Your task to perform on an android device: Look up the best rated coffee maker on Lowe's. Image 0: 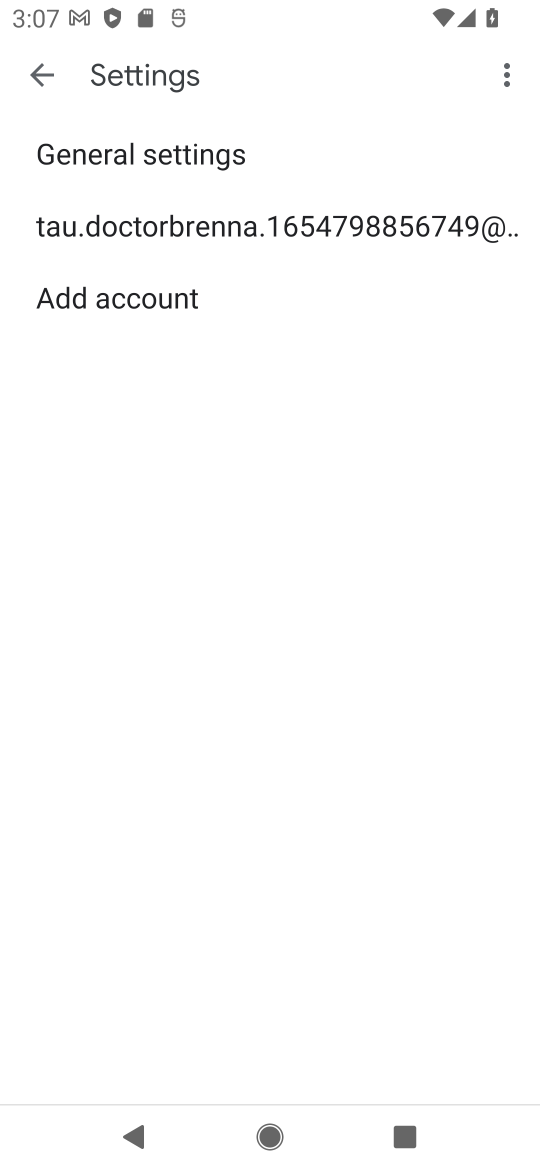
Step 0: press home button
Your task to perform on an android device: Look up the best rated coffee maker on Lowe's. Image 1: 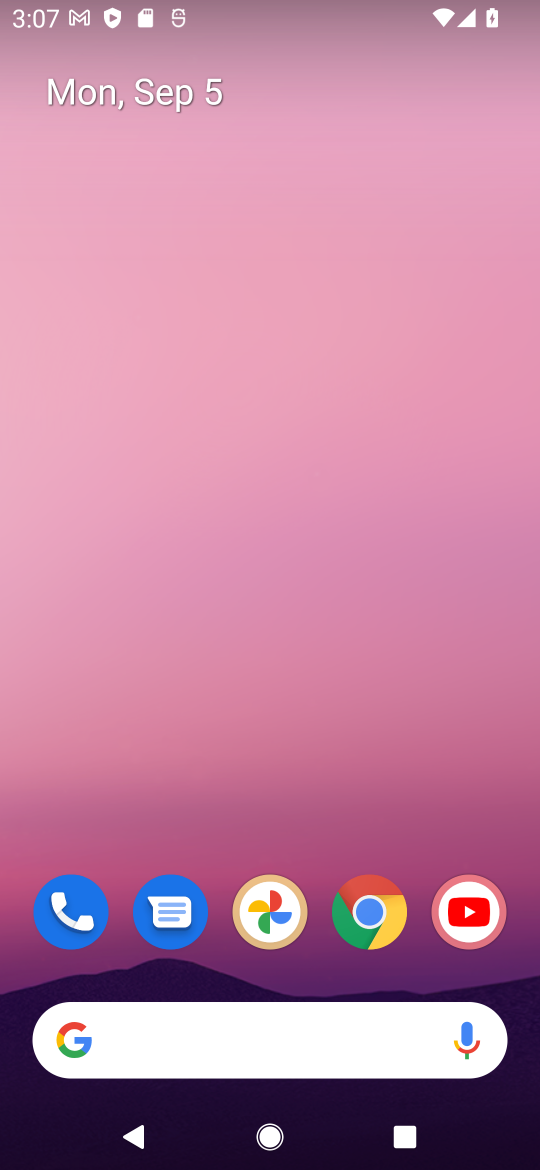
Step 1: click (406, 917)
Your task to perform on an android device: Look up the best rated coffee maker on Lowe's. Image 2: 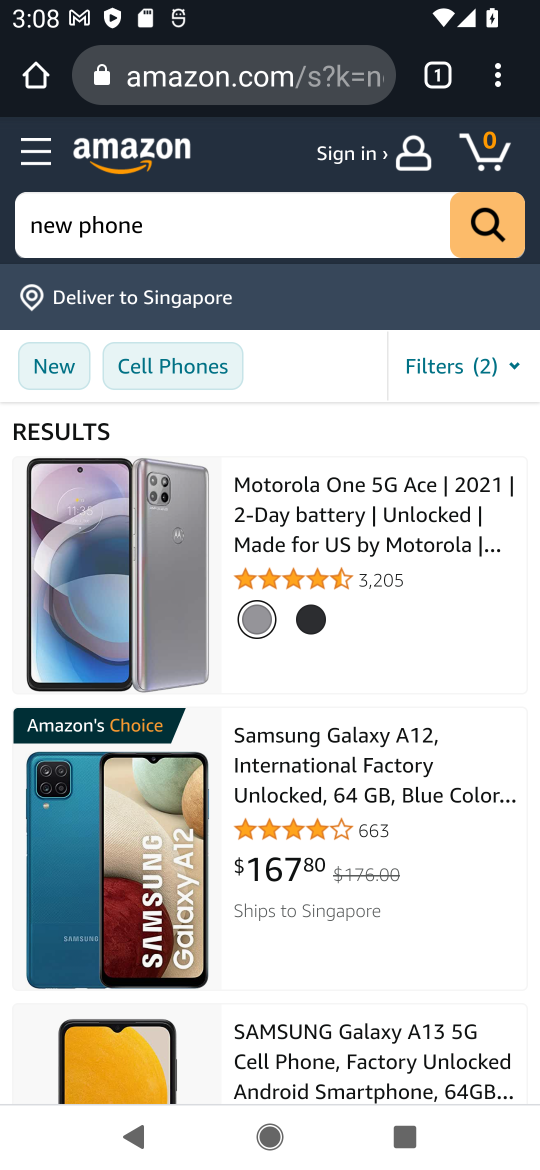
Step 2: click (314, 78)
Your task to perform on an android device: Look up the best rated coffee maker on Lowe's. Image 3: 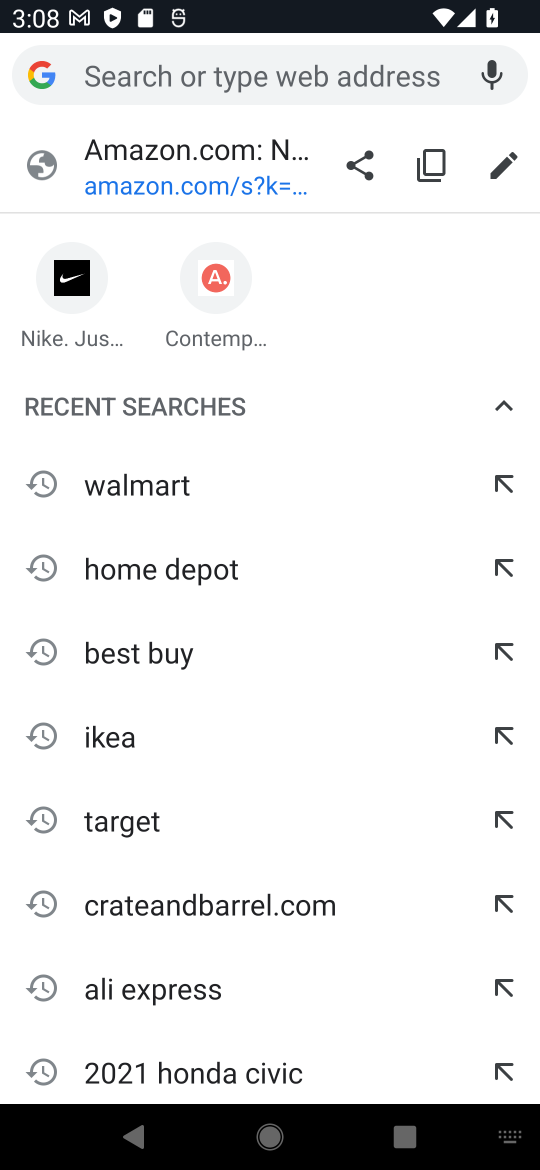
Step 3: type "lowe's"
Your task to perform on an android device: Look up the best rated coffee maker on Lowe's. Image 4: 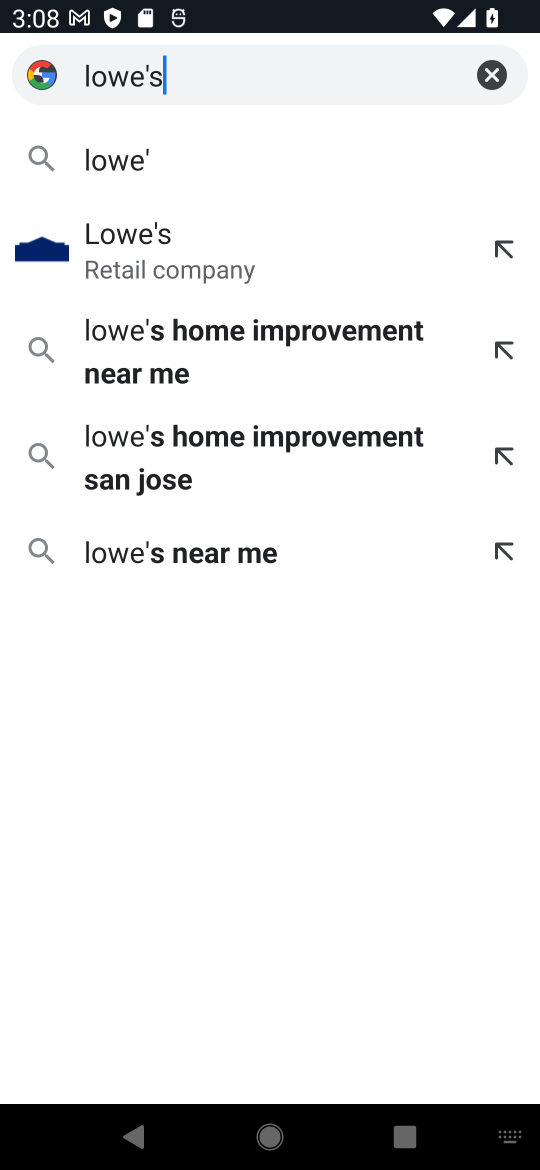
Step 4: type ""
Your task to perform on an android device: Look up the best rated coffee maker on Lowe's. Image 5: 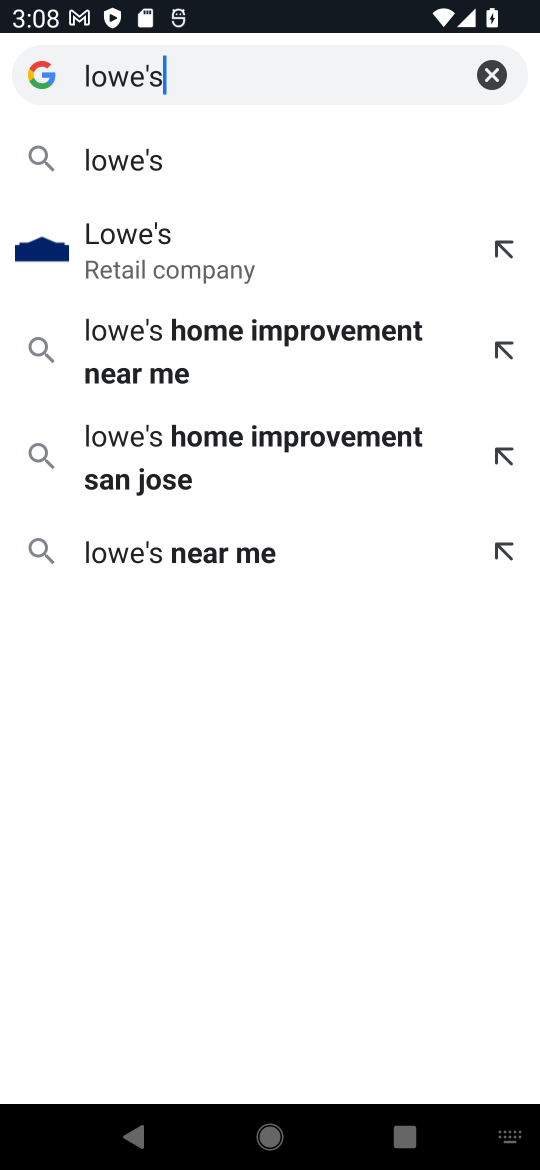
Step 5: press enter
Your task to perform on an android device: Look up the best rated coffee maker on Lowe's. Image 6: 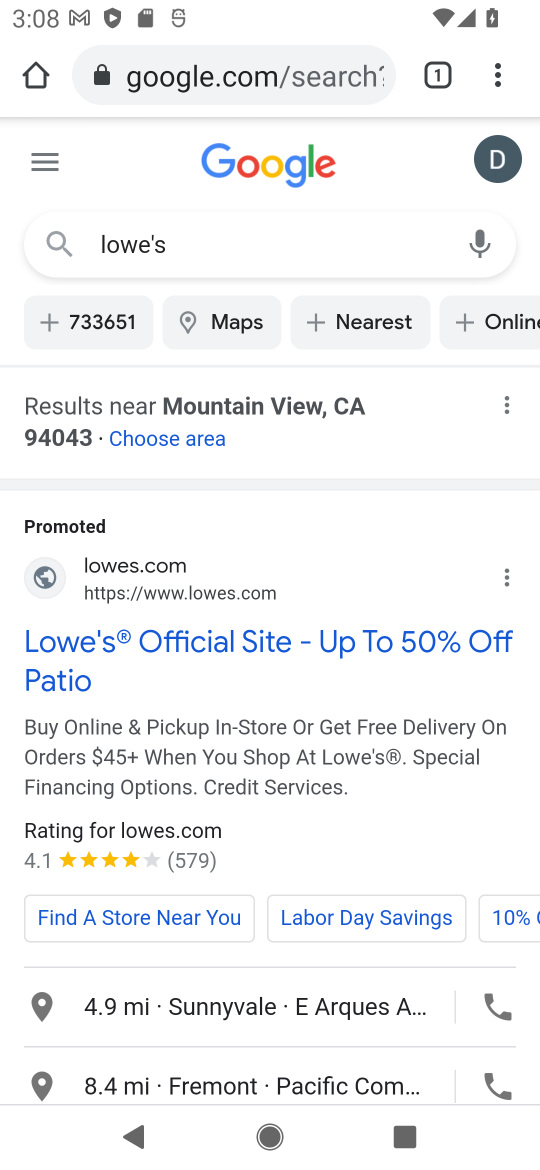
Step 6: click (255, 638)
Your task to perform on an android device: Look up the best rated coffee maker on Lowe's. Image 7: 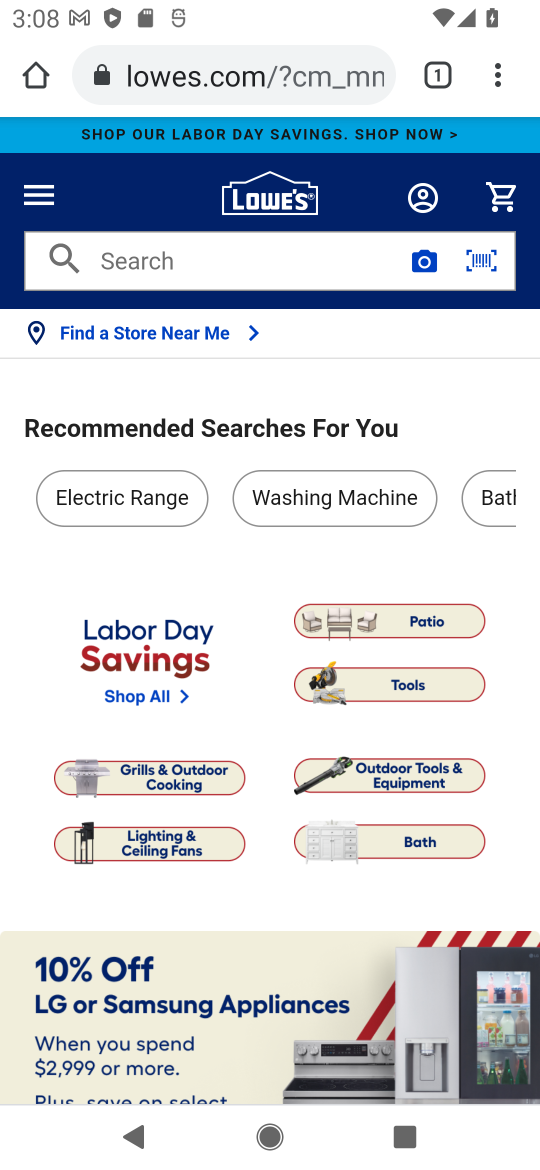
Step 7: click (292, 261)
Your task to perform on an android device: Look up the best rated coffee maker on Lowe's. Image 8: 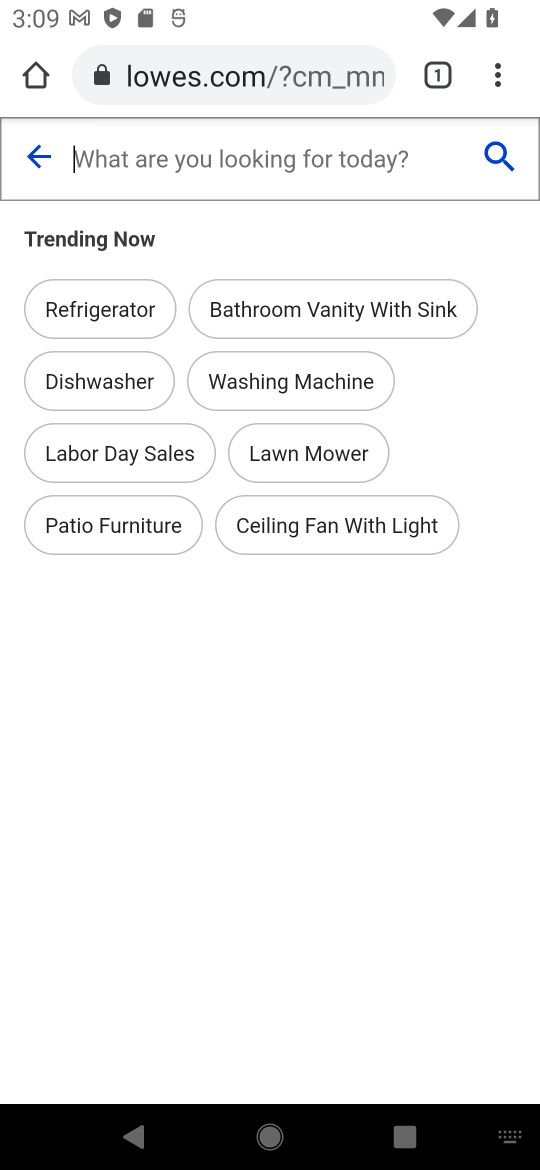
Step 8: type "coffee maker"
Your task to perform on an android device: Look up the best rated coffee maker on Lowe's. Image 9: 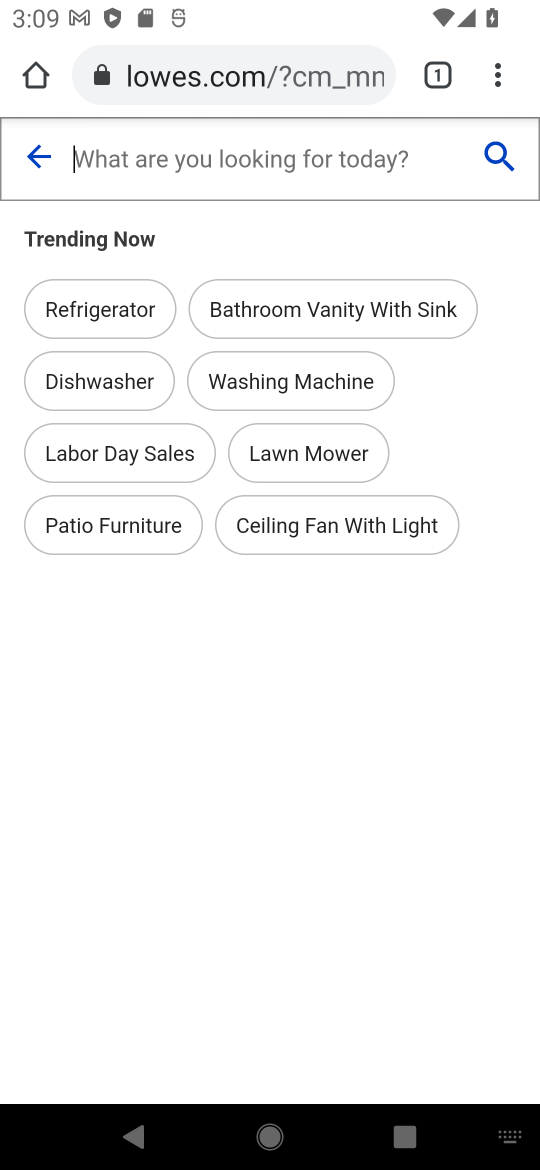
Step 9: type ""
Your task to perform on an android device: Look up the best rated coffee maker on Lowe's. Image 10: 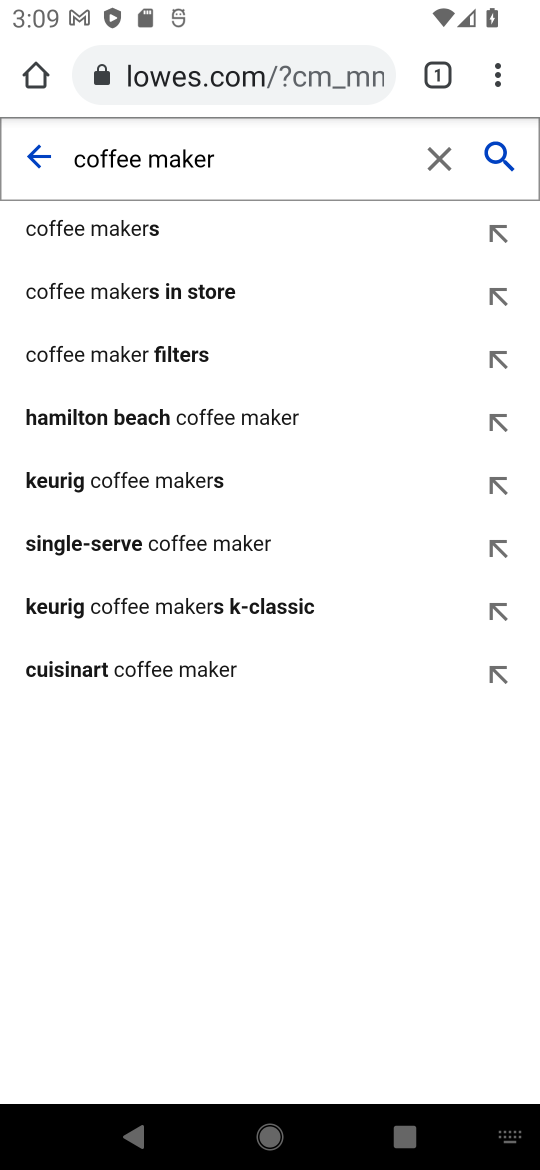
Step 10: press enter
Your task to perform on an android device: Look up the best rated coffee maker on Lowe's. Image 11: 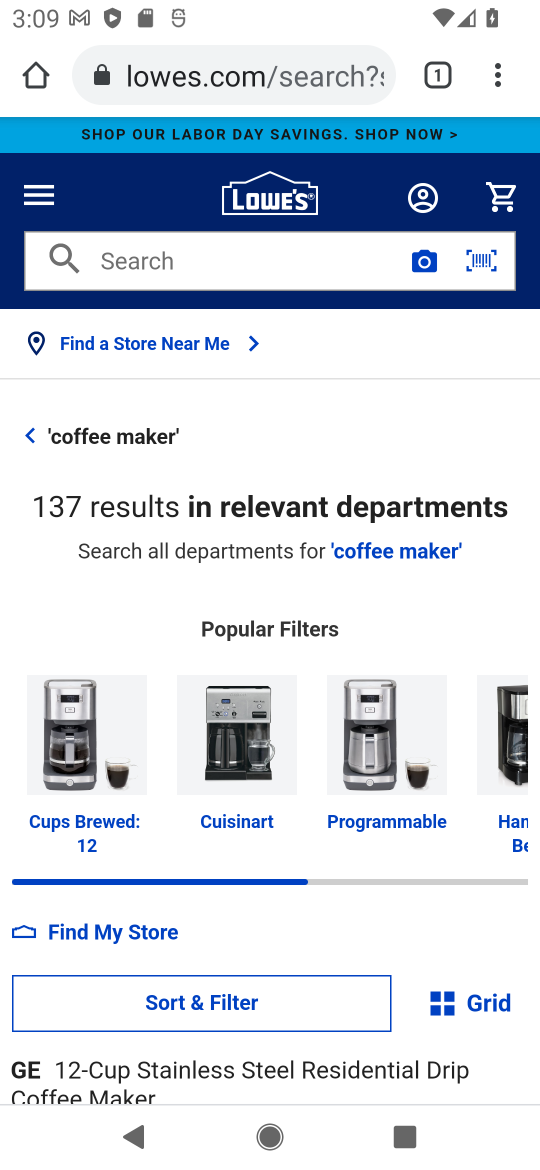
Step 11: drag from (307, 775) to (276, 445)
Your task to perform on an android device: Look up the best rated coffee maker on Lowe's. Image 12: 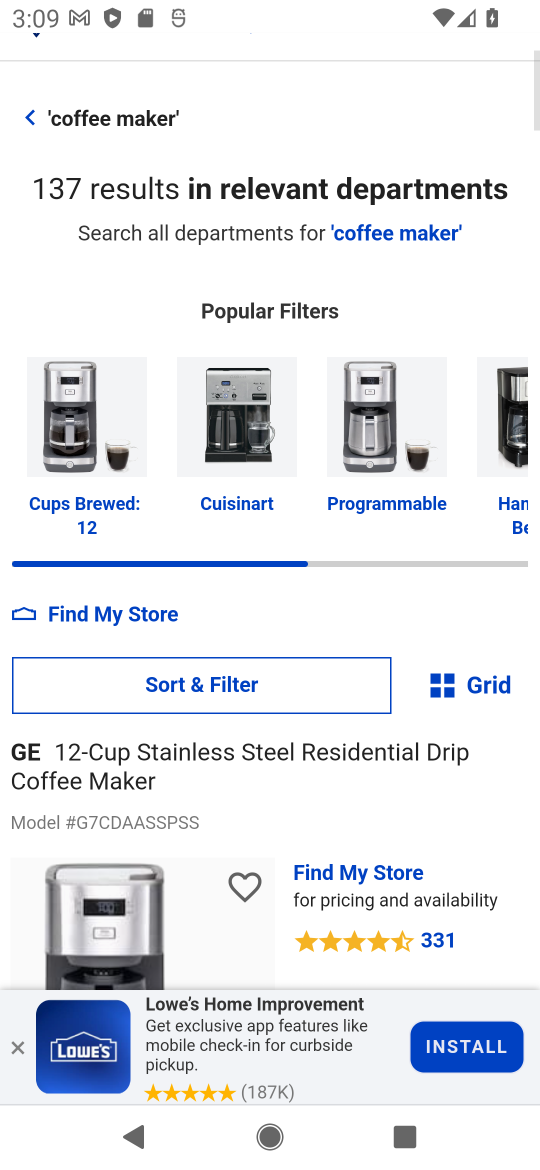
Step 12: click (251, 713)
Your task to perform on an android device: Look up the best rated coffee maker on Lowe's. Image 13: 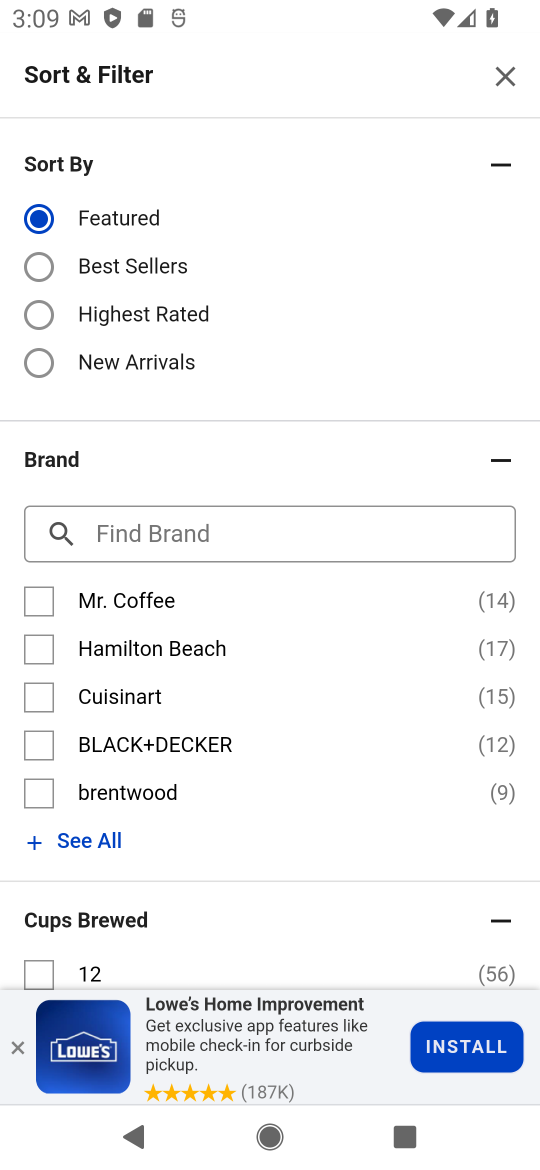
Step 13: click (129, 307)
Your task to perform on an android device: Look up the best rated coffee maker on Lowe's. Image 14: 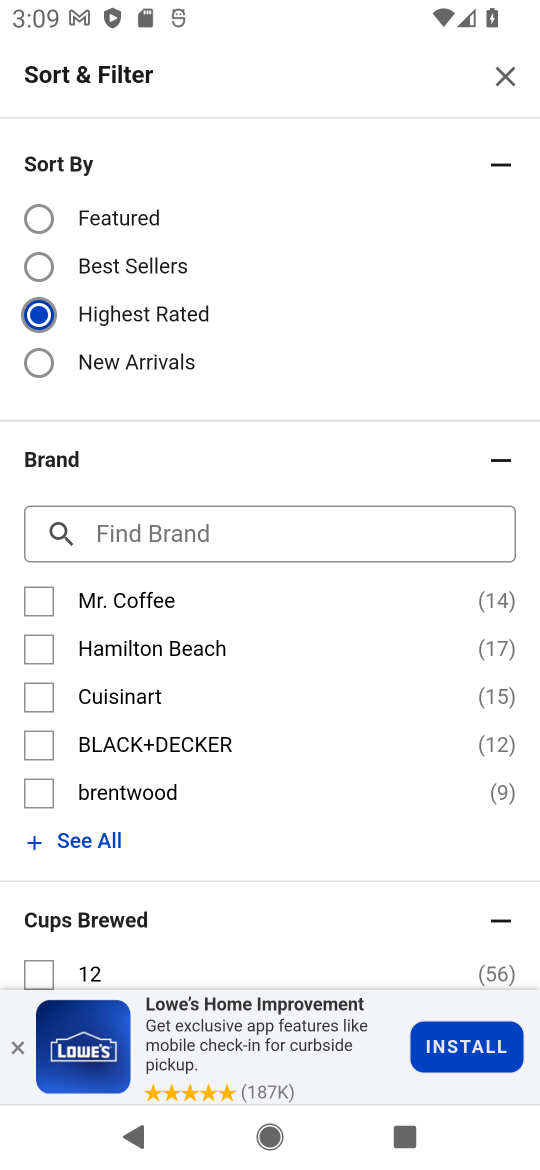
Step 14: click (13, 1051)
Your task to perform on an android device: Look up the best rated coffee maker on Lowe's. Image 15: 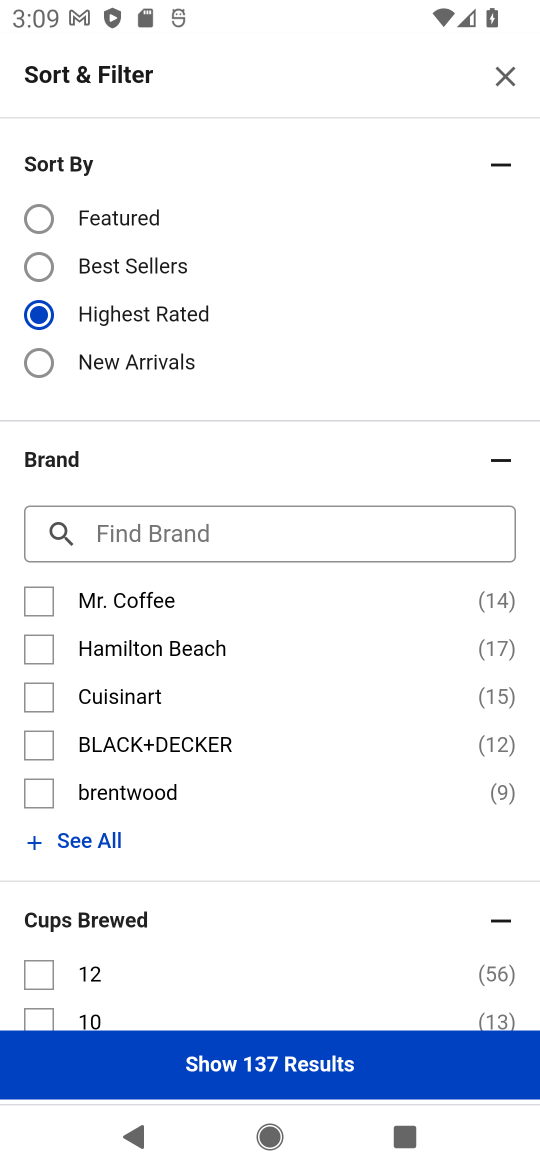
Step 15: click (206, 1065)
Your task to perform on an android device: Look up the best rated coffee maker on Lowe's. Image 16: 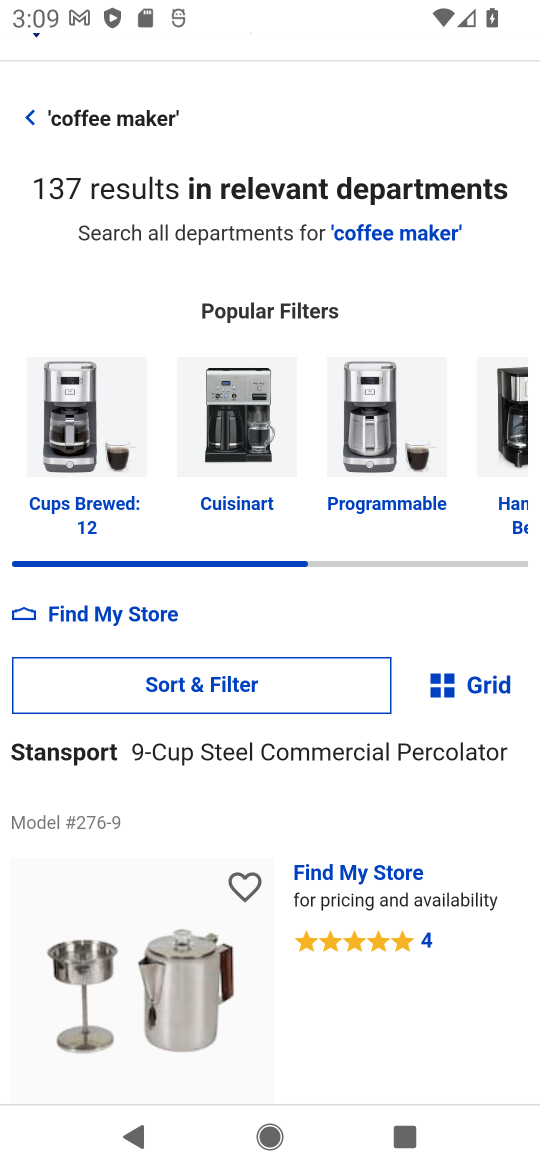
Step 16: task complete